Your task to perform on an android device: Open network settings Image 0: 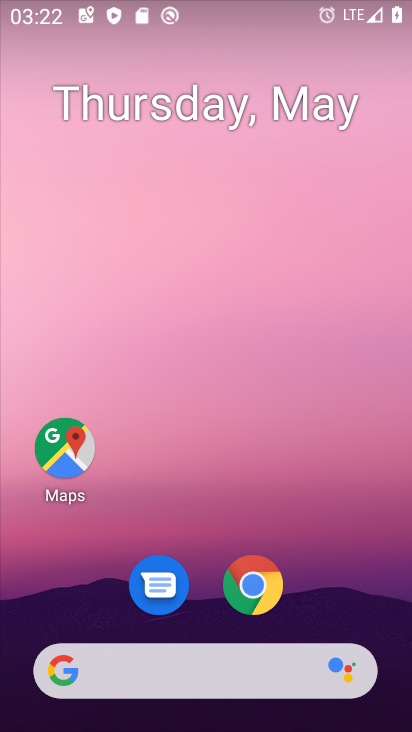
Step 0: drag from (251, 510) to (265, 30)
Your task to perform on an android device: Open network settings Image 1: 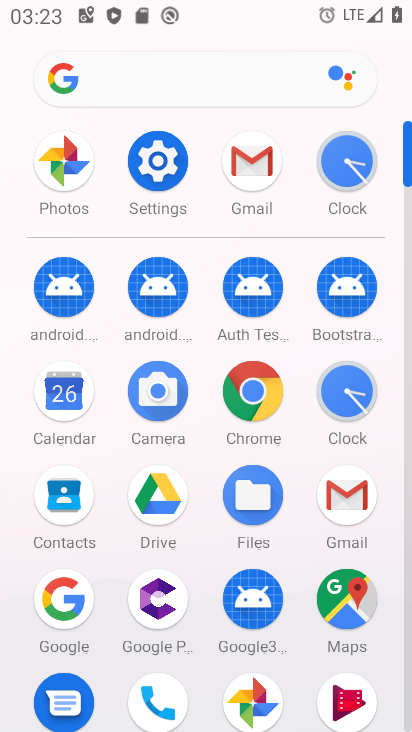
Step 1: click (169, 162)
Your task to perform on an android device: Open network settings Image 2: 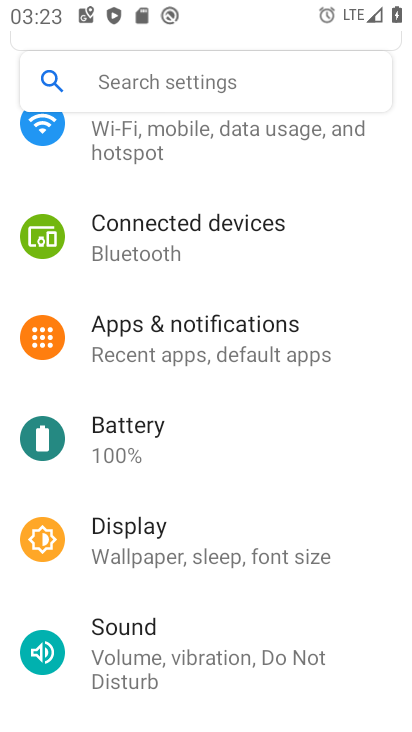
Step 2: drag from (234, 247) to (240, 454)
Your task to perform on an android device: Open network settings Image 3: 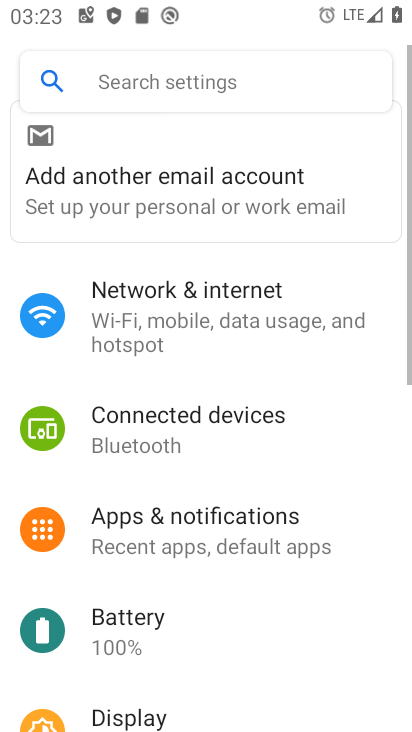
Step 3: click (237, 258)
Your task to perform on an android device: Open network settings Image 4: 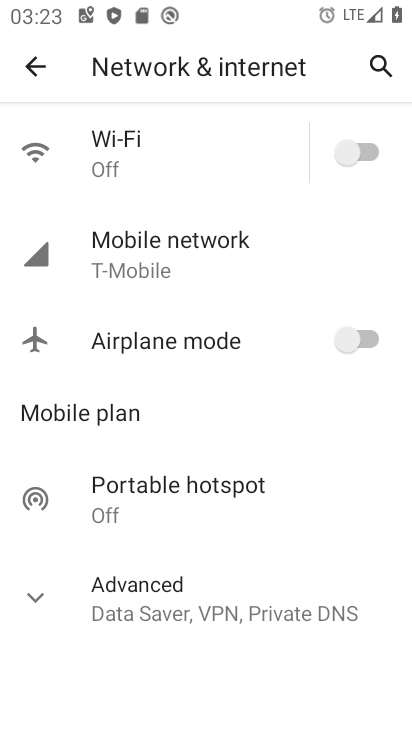
Step 4: task complete